Your task to perform on an android device: Check the news Image 0: 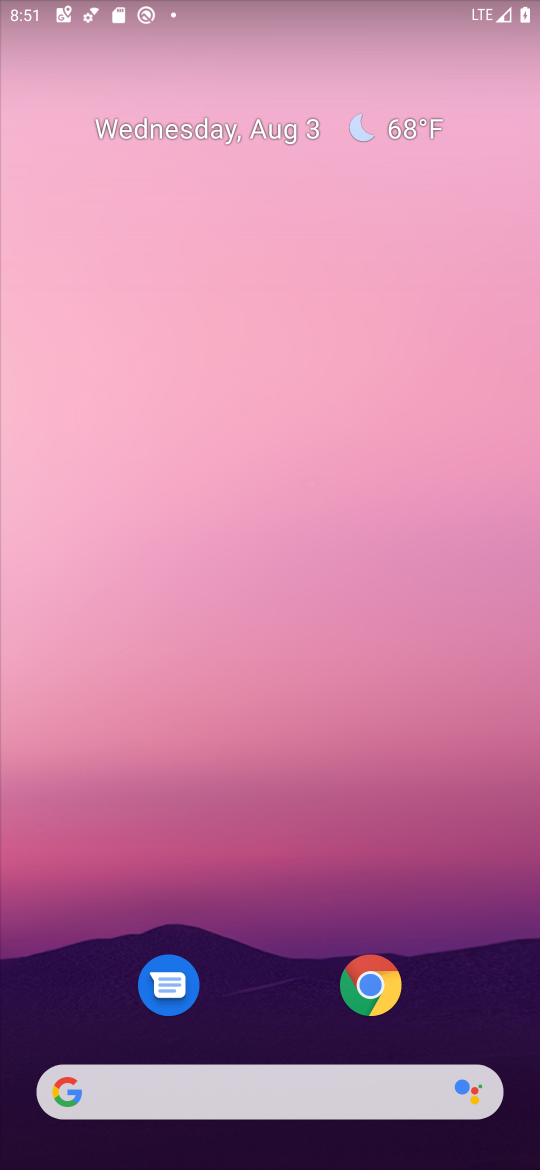
Step 0: drag from (255, 974) to (250, 370)
Your task to perform on an android device: Check the news Image 1: 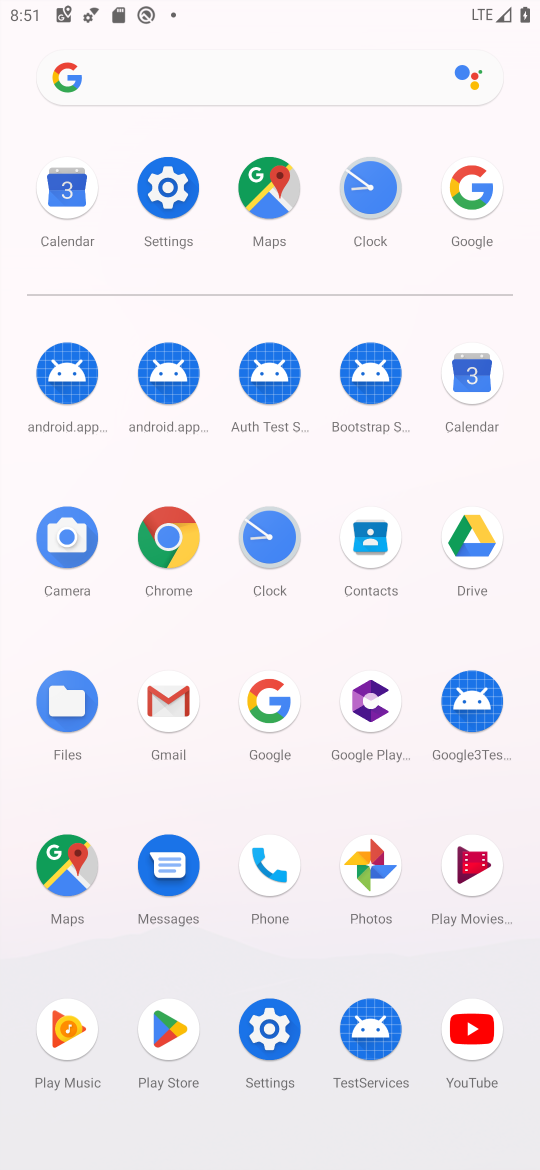
Step 1: click (262, 703)
Your task to perform on an android device: Check the news Image 2: 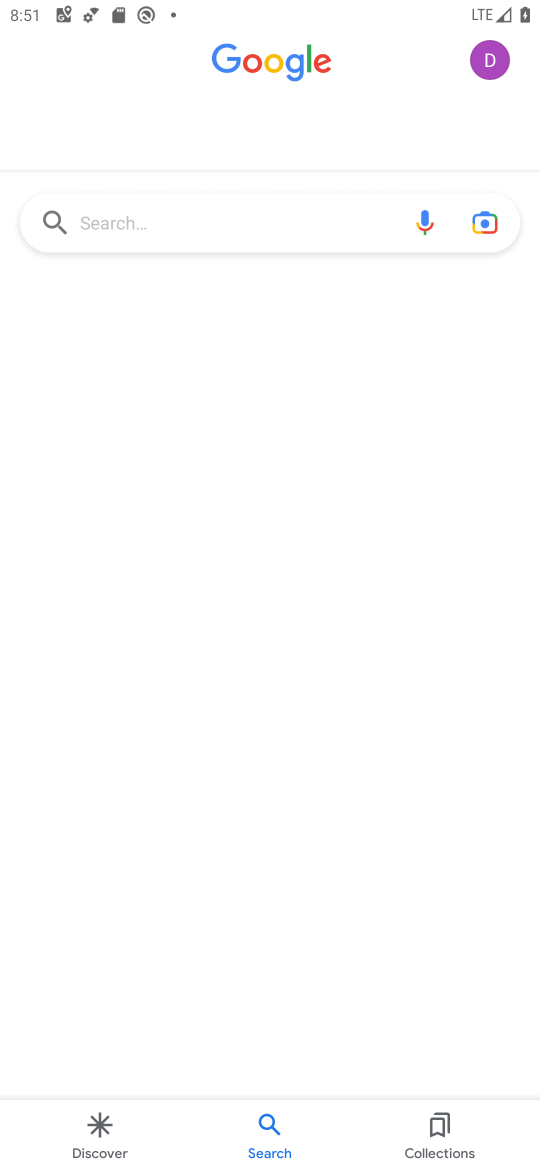
Step 2: click (124, 213)
Your task to perform on an android device: Check the news Image 3: 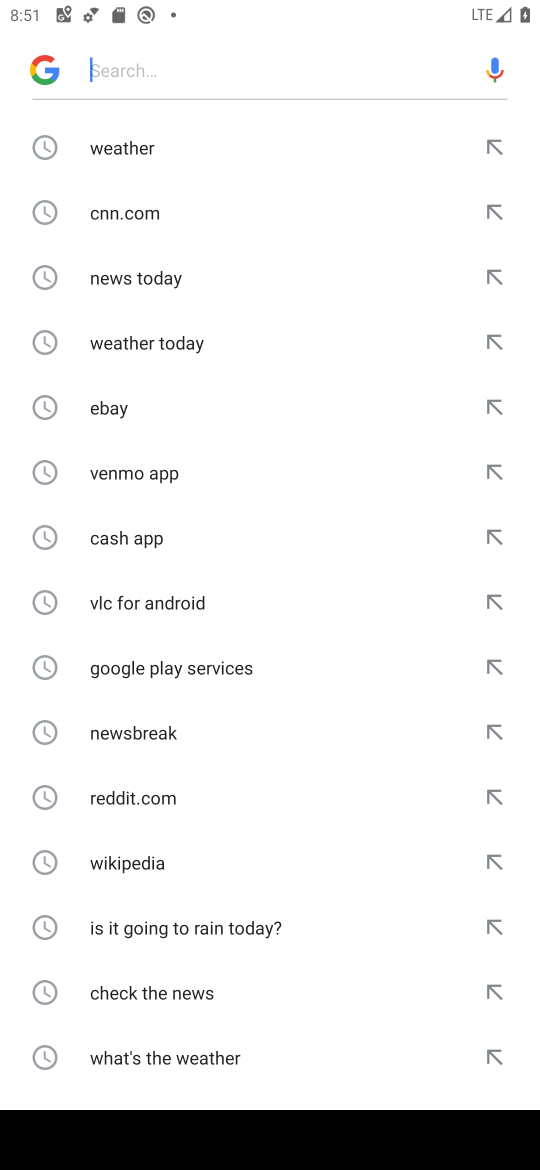
Step 3: type "news"
Your task to perform on an android device: Check the news Image 4: 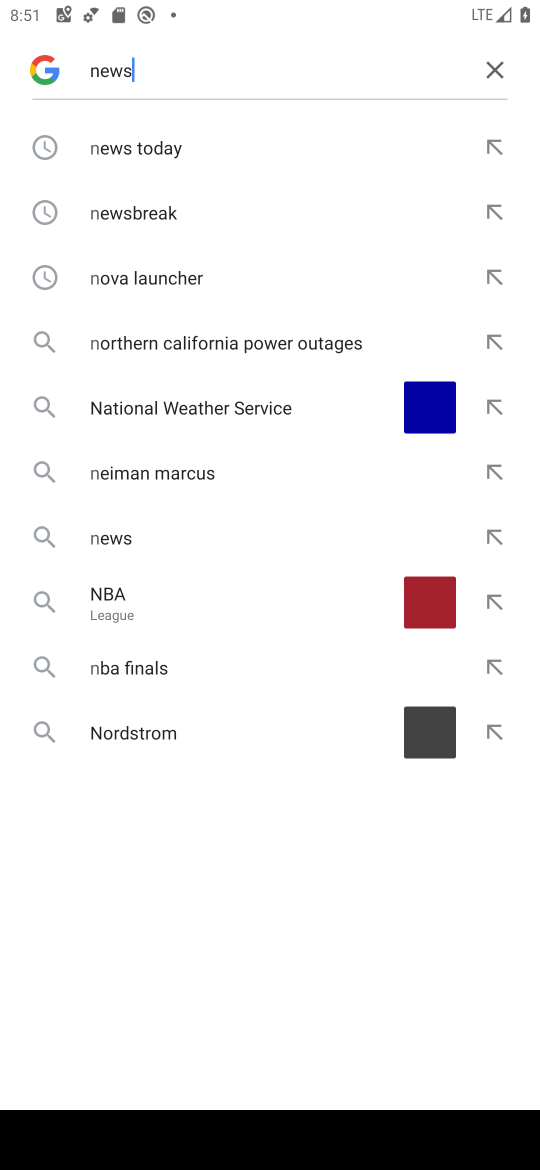
Step 4: type ""
Your task to perform on an android device: Check the news Image 5: 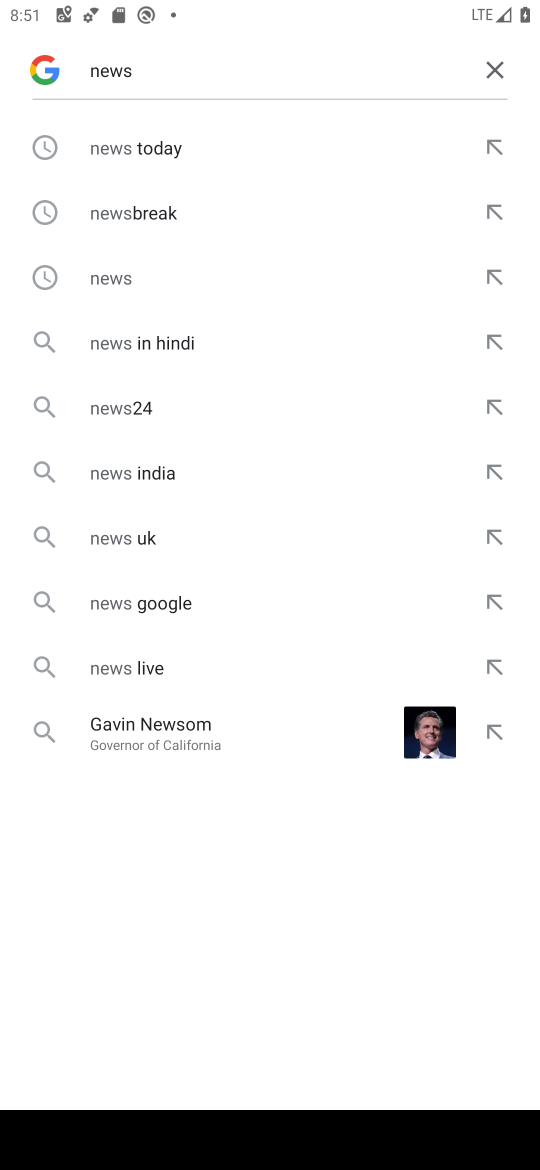
Step 5: click (136, 284)
Your task to perform on an android device: Check the news Image 6: 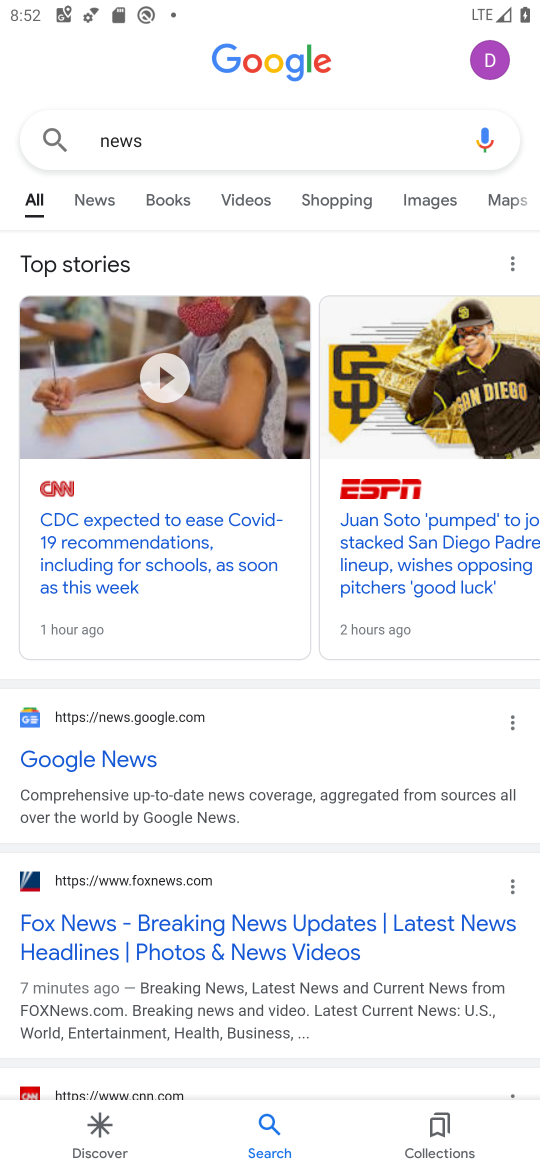
Step 6: click (92, 196)
Your task to perform on an android device: Check the news Image 7: 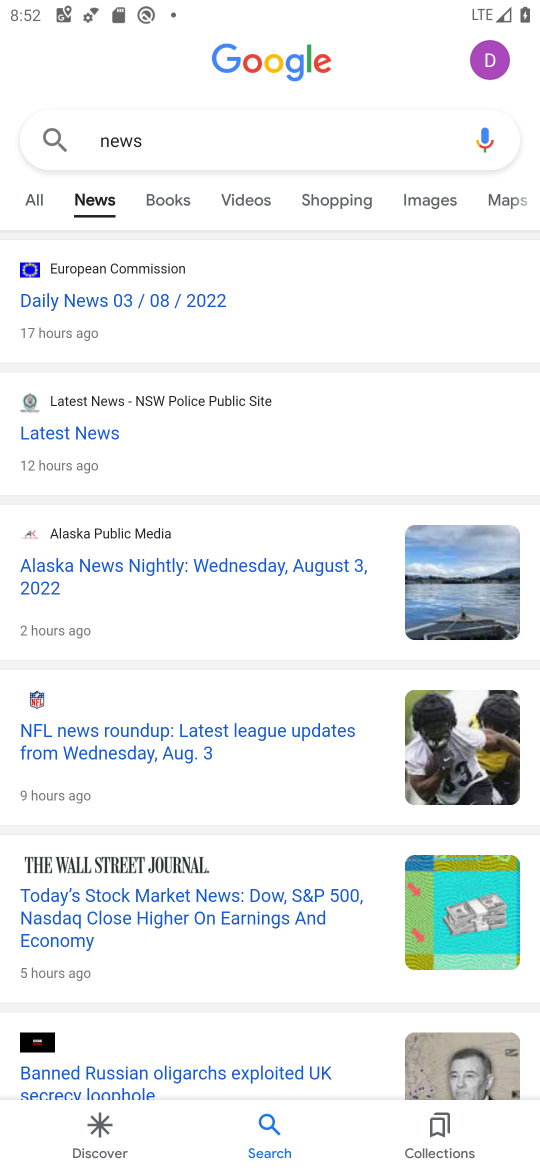
Step 7: task complete